Your task to perform on an android device: toggle wifi Image 0: 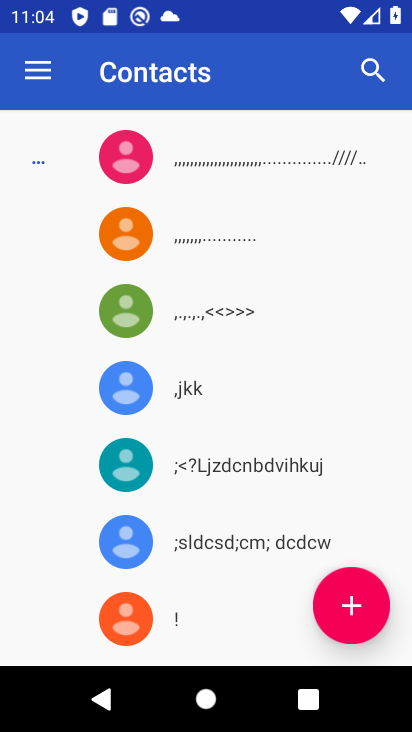
Step 0: press home button
Your task to perform on an android device: toggle wifi Image 1: 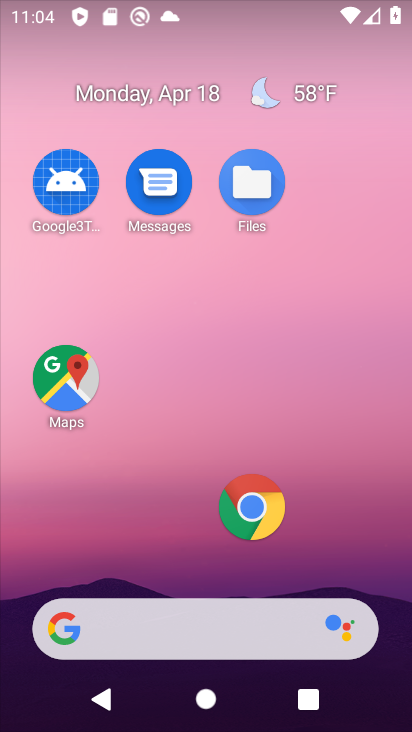
Step 1: drag from (210, 485) to (157, 59)
Your task to perform on an android device: toggle wifi Image 2: 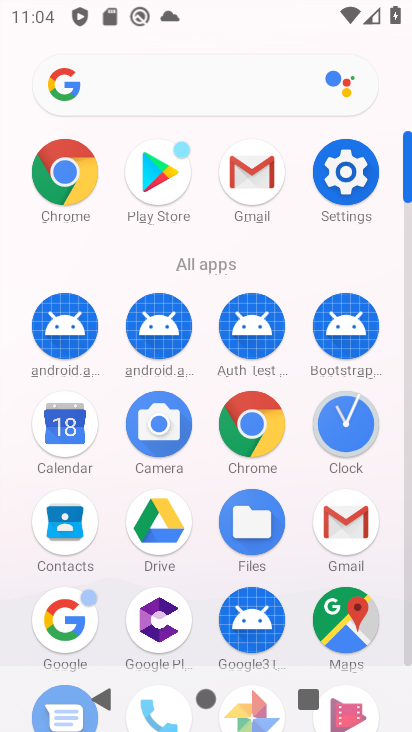
Step 2: click (338, 177)
Your task to perform on an android device: toggle wifi Image 3: 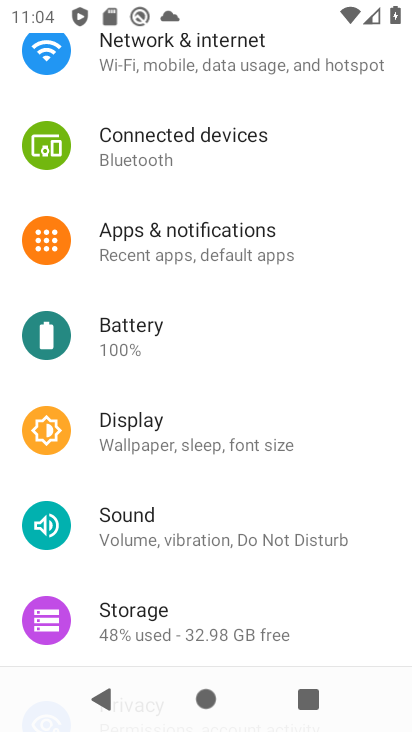
Step 3: drag from (190, 232) to (142, 507)
Your task to perform on an android device: toggle wifi Image 4: 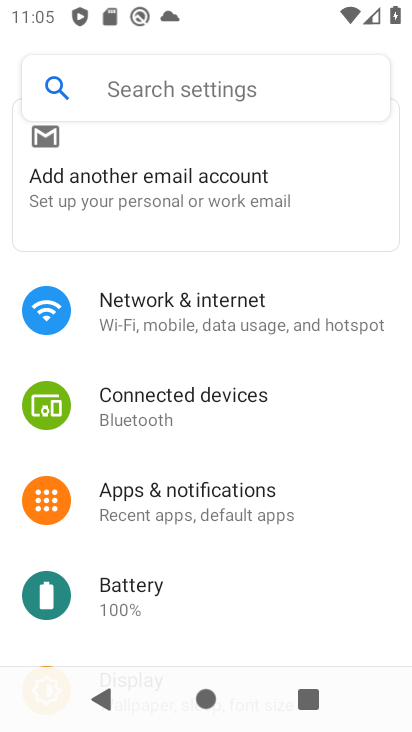
Step 4: click (157, 290)
Your task to perform on an android device: toggle wifi Image 5: 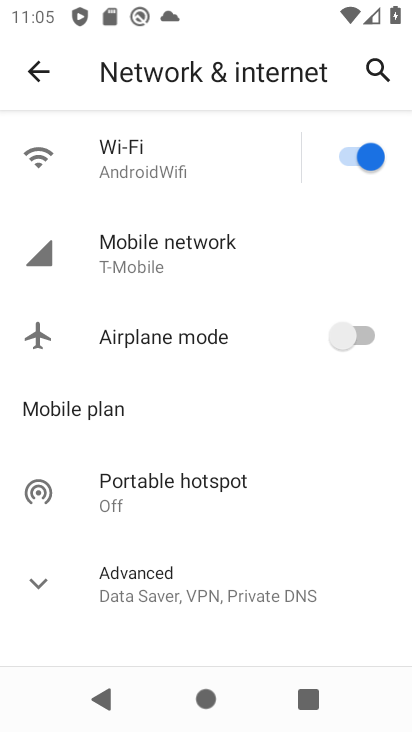
Step 5: click (188, 166)
Your task to perform on an android device: toggle wifi Image 6: 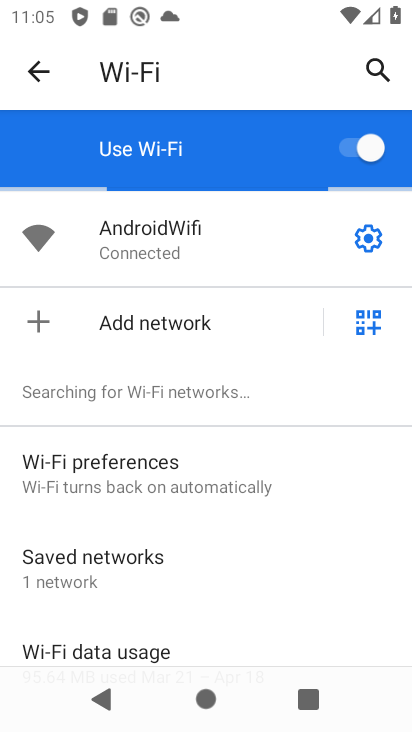
Step 6: task complete